Your task to perform on an android device: turn on improve location accuracy Image 0: 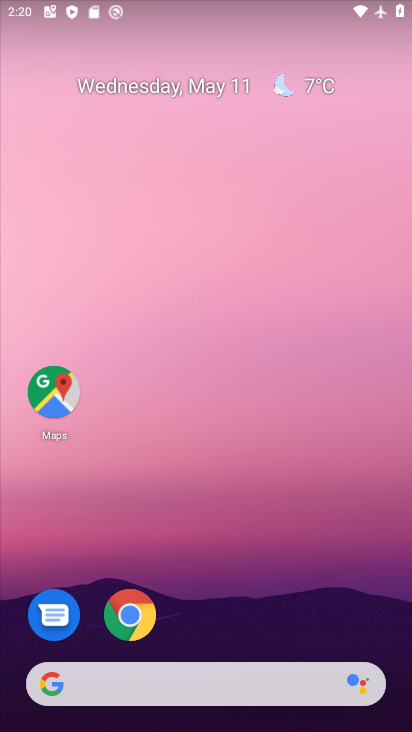
Step 0: drag from (285, 637) to (283, 142)
Your task to perform on an android device: turn on improve location accuracy Image 1: 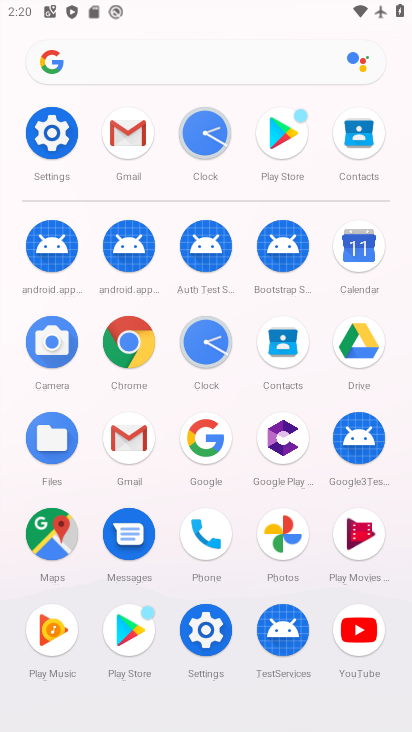
Step 1: click (46, 132)
Your task to perform on an android device: turn on improve location accuracy Image 2: 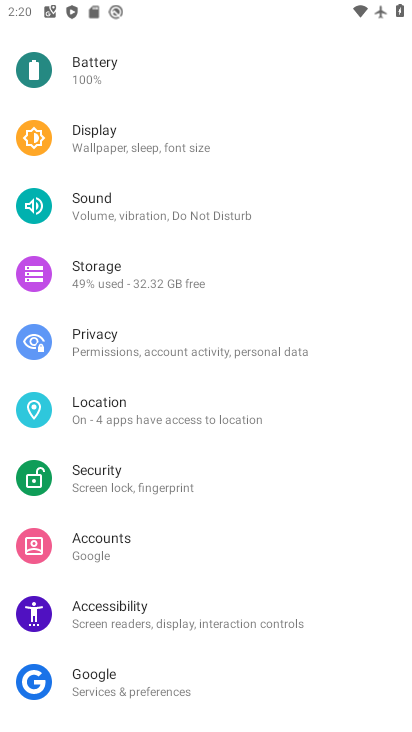
Step 2: drag from (157, 254) to (232, 722)
Your task to perform on an android device: turn on improve location accuracy Image 3: 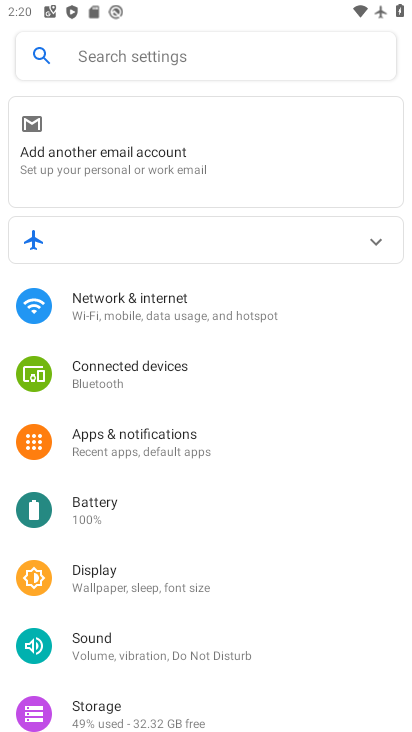
Step 3: drag from (205, 639) to (247, 268)
Your task to perform on an android device: turn on improve location accuracy Image 4: 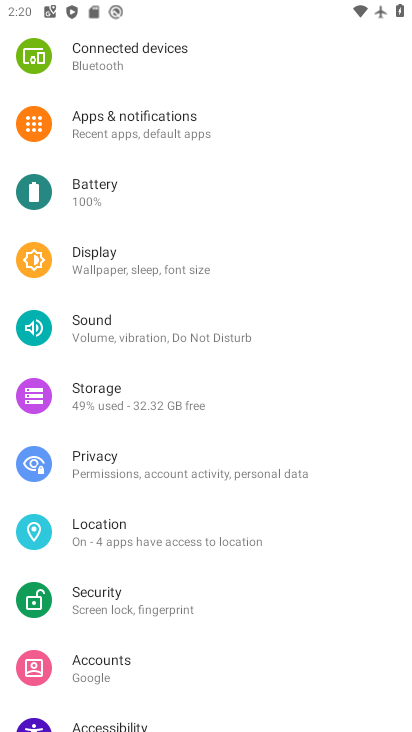
Step 4: click (122, 531)
Your task to perform on an android device: turn on improve location accuracy Image 5: 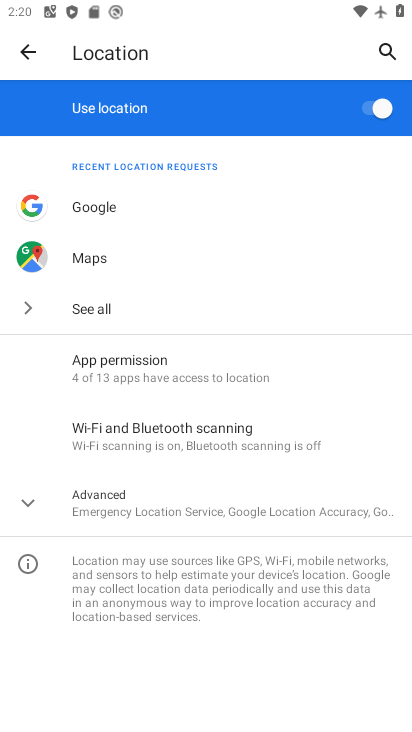
Step 5: click (133, 497)
Your task to perform on an android device: turn on improve location accuracy Image 6: 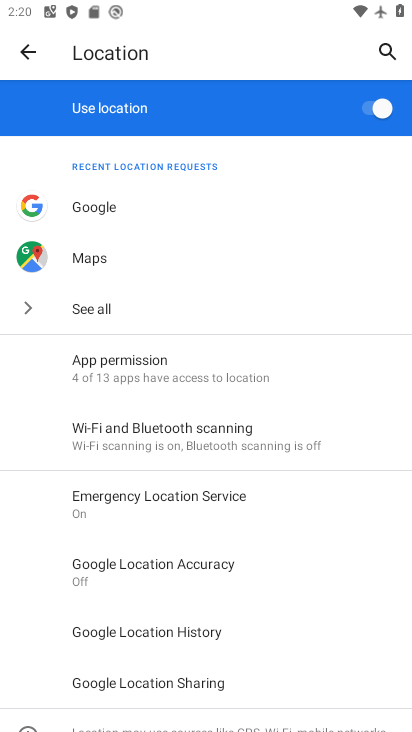
Step 6: click (219, 568)
Your task to perform on an android device: turn on improve location accuracy Image 7: 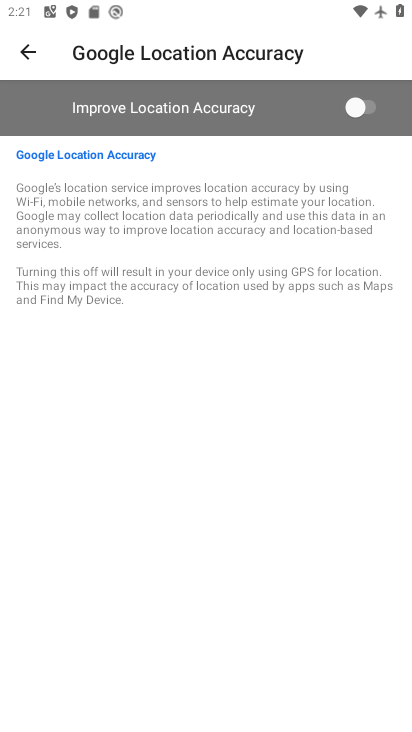
Step 7: click (362, 104)
Your task to perform on an android device: turn on improve location accuracy Image 8: 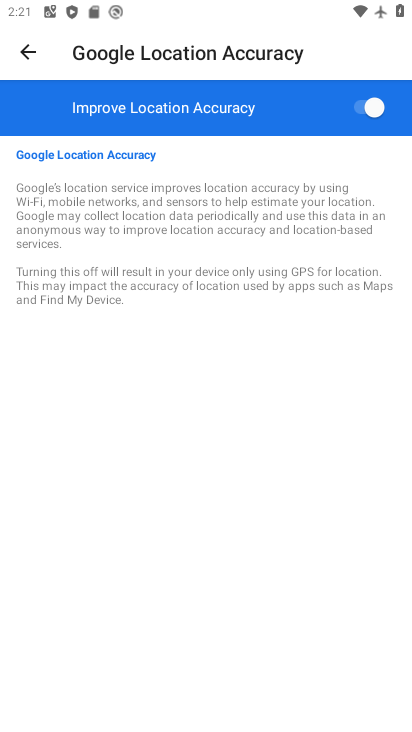
Step 8: task complete